Your task to perform on an android device: turn off notifications settings in the gmail app Image 0: 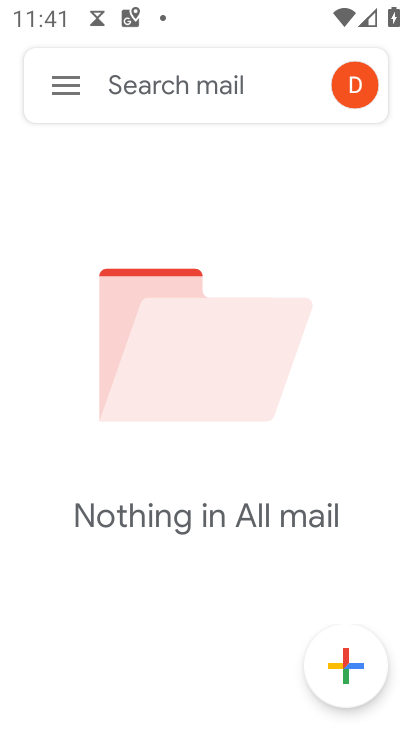
Step 0: press home button
Your task to perform on an android device: turn off notifications settings in the gmail app Image 1: 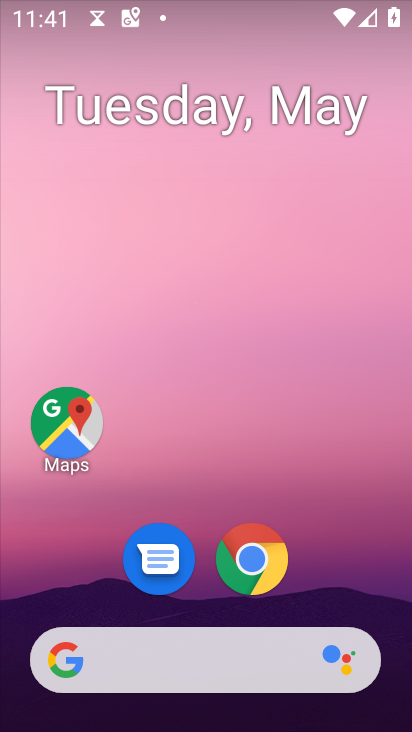
Step 1: drag from (342, 603) to (296, 3)
Your task to perform on an android device: turn off notifications settings in the gmail app Image 2: 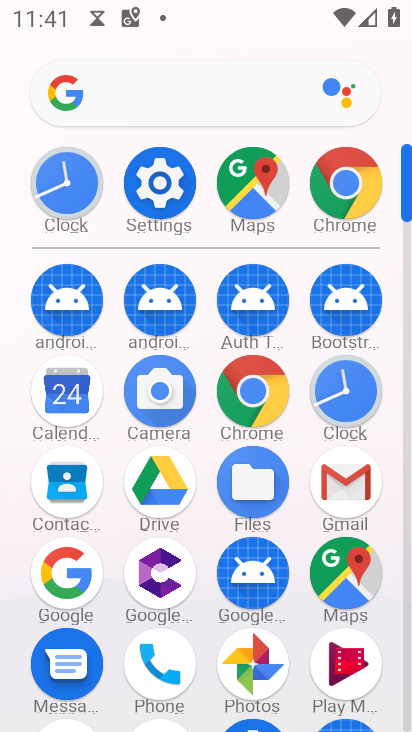
Step 2: click (366, 491)
Your task to perform on an android device: turn off notifications settings in the gmail app Image 3: 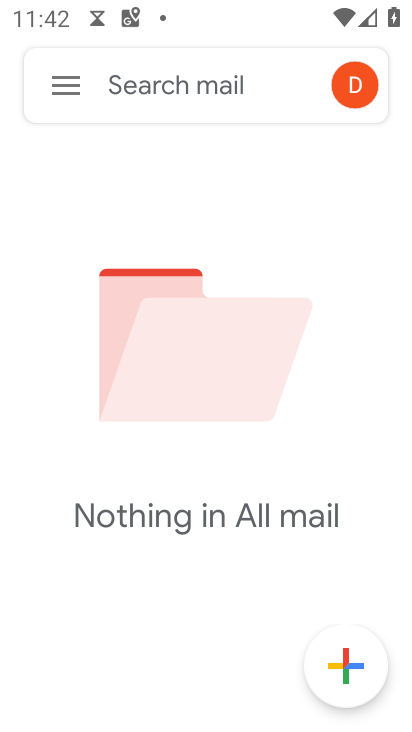
Step 3: click (68, 97)
Your task to perform on an android device: turn off notifications settings in the gmail app Image 4: 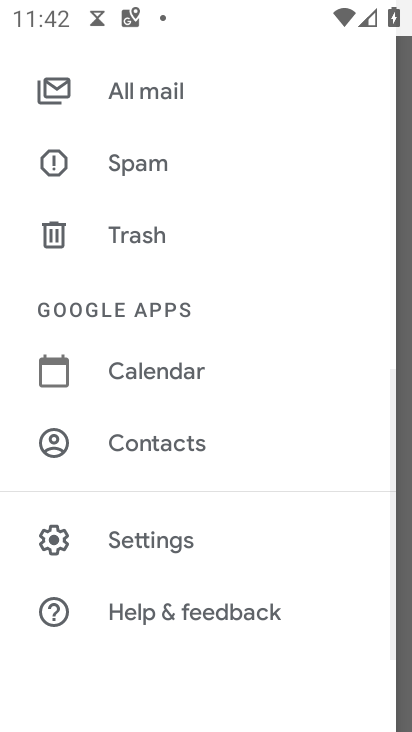
Step 4: click (158, 539)
Your task to perform on an android device: turn off notifications settings in the gmail app Image 5: 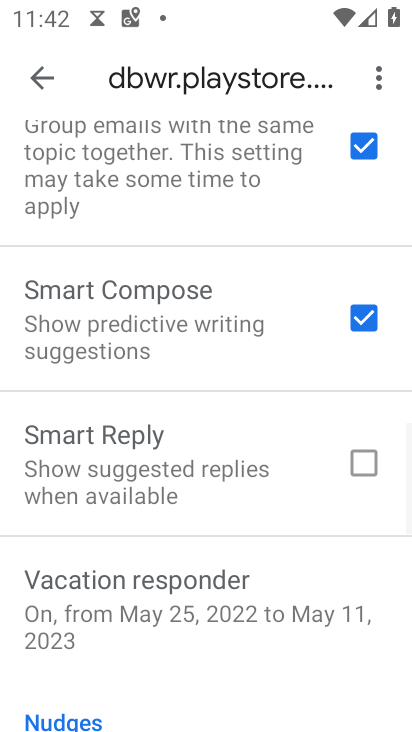
Step 5: drag from (197, 52) to (162, 675)
Your task to perform on an android device: turn off notifications settings in the gmail app Image 6: 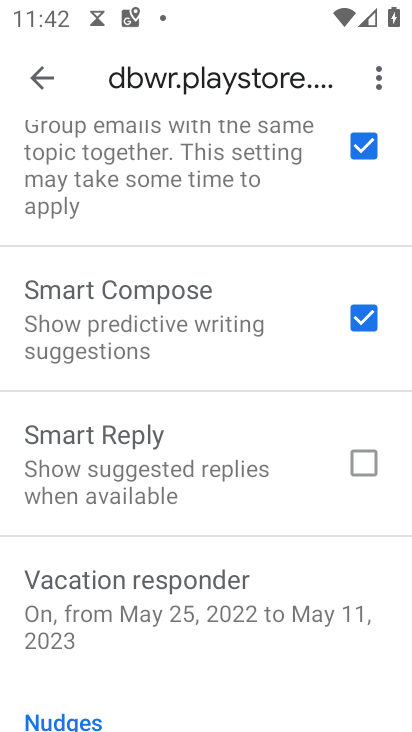
Step 6: drag from (210, 221) to (282, 683)
Your task to perform on an android device: turn off notifications settings in the gmail app Image 7: 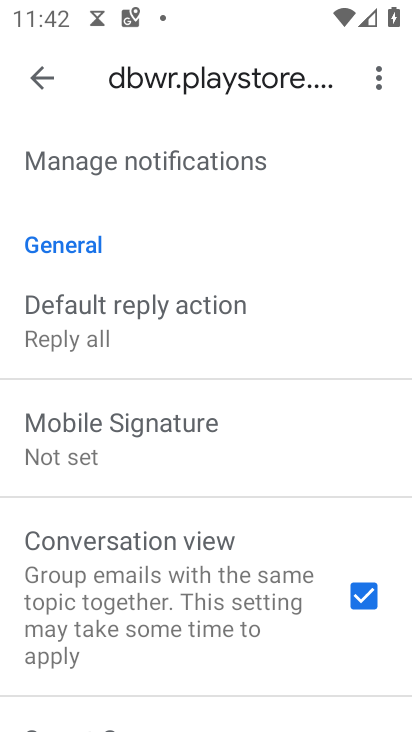
Step 7: drag from (186, 274) to (267, 639)
Your task to perform on an android device: turn off notifications settings in the gmail app Image 8: 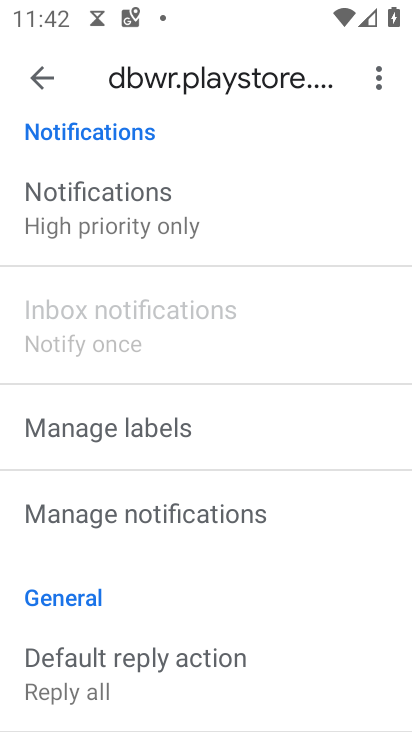
Step 8: click (147, 214)
Your task to perform on an android device: turn off notifications settings in the gmail app Image 9: 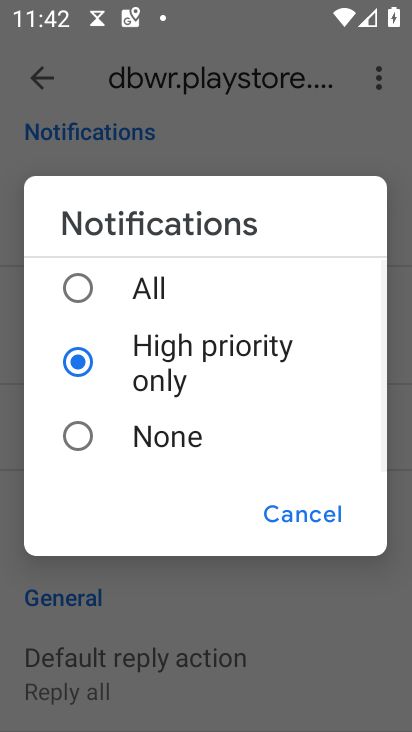
Step 9: click (153, 438)
Your task to perform on an android device: turn off notifications settings in the gmail app Image 10: 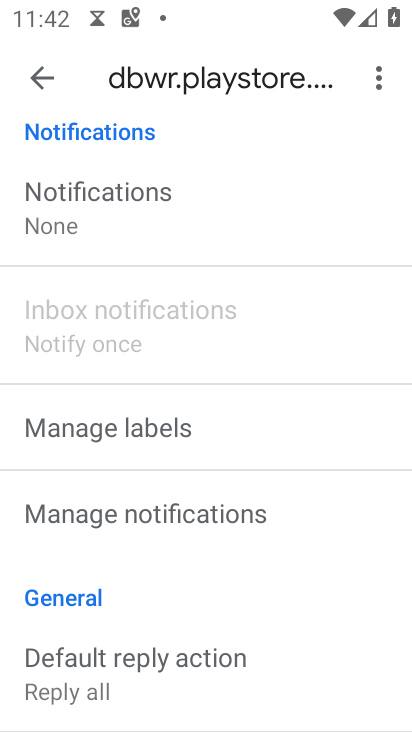
Step 10: task complete